Your task to perform on an android device: Clear all items from cart on walmart. Search for "jbl charge 4" on walmart, select the first entry, and add it to the cart. Image 0: 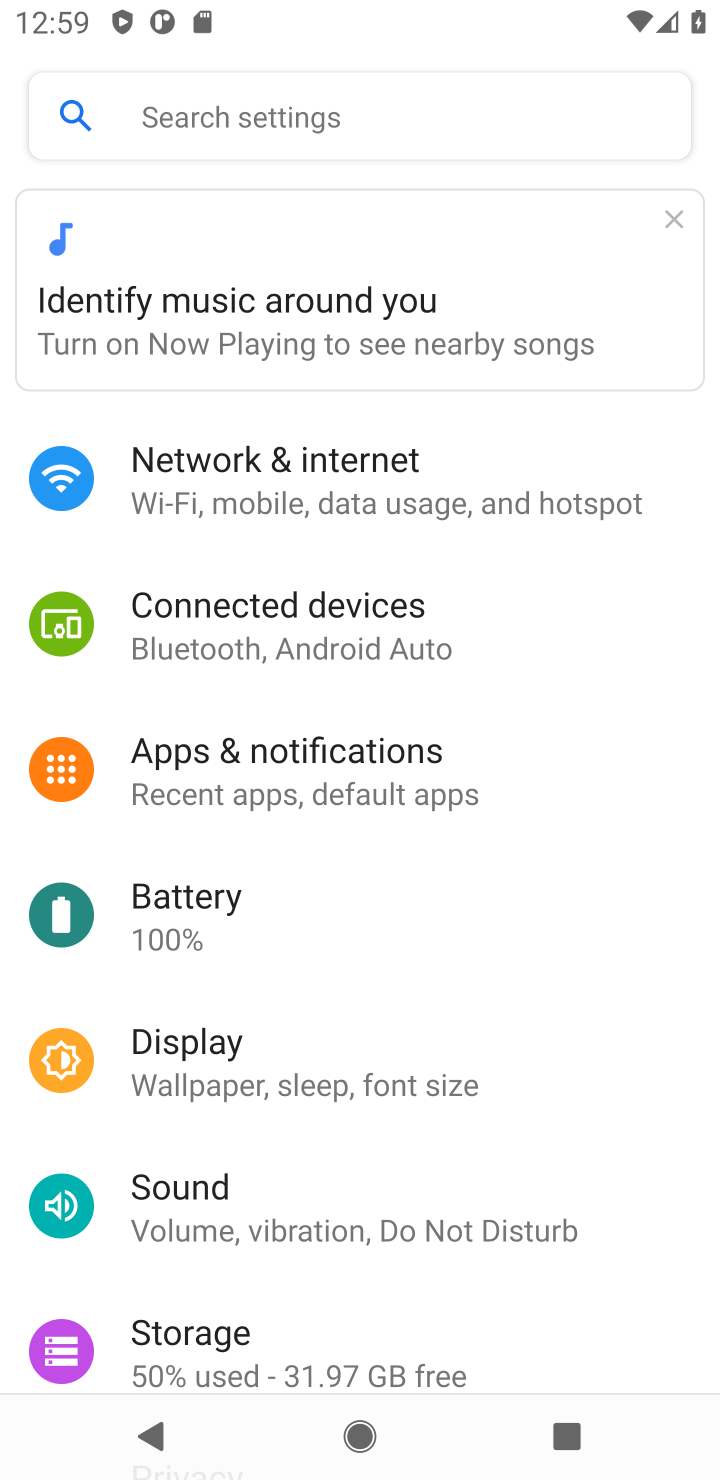
Step 0: press home button
Your task to perform on an android device: Clear all items from cart on walmart. Search for "jbl charge 4" on walmart, select the first entry, and add it to the cart. Image 1: 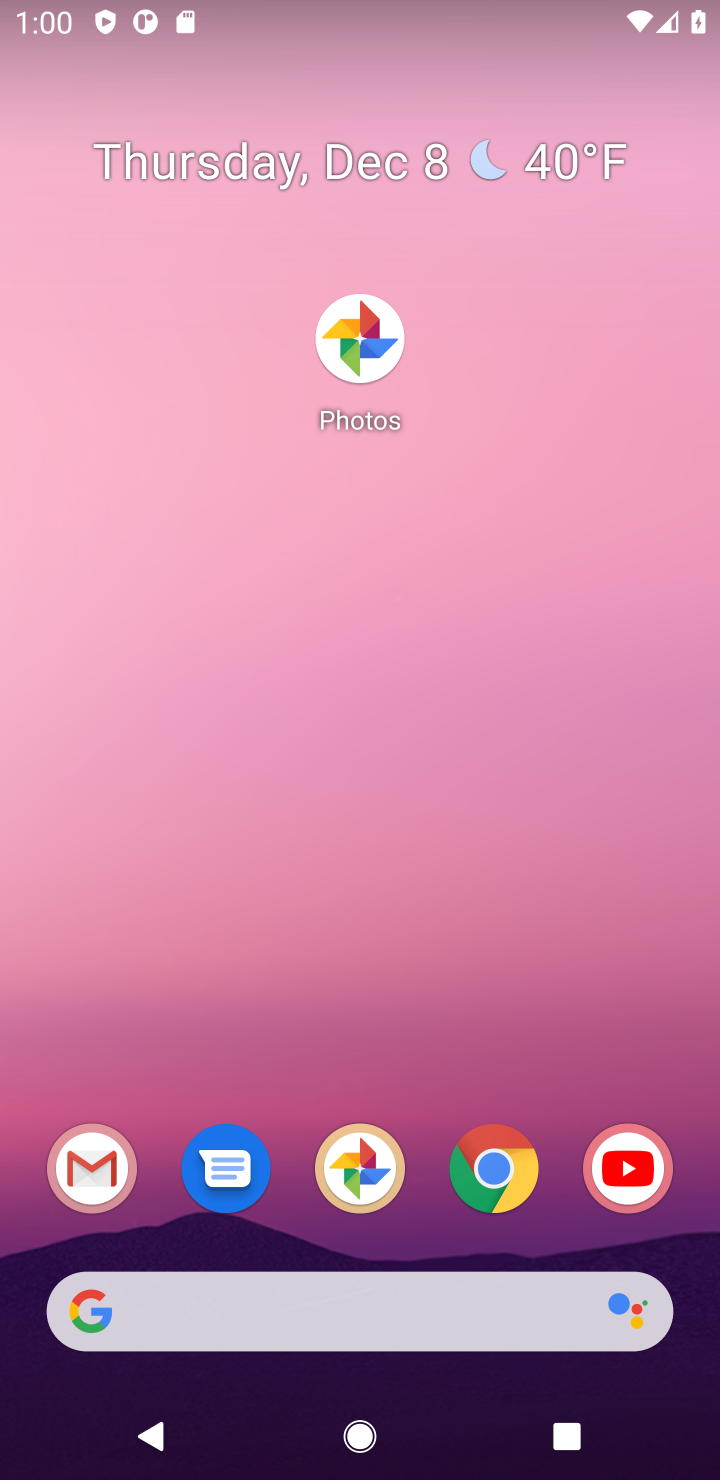
Step 1: drag from (356, 1187) to (356, 75)
Your task to perform on an android device: Clear all items from cart on walmart. Search for "jbl charge 4" on walmart, select the first entry, and add it to the cart. Image 2: 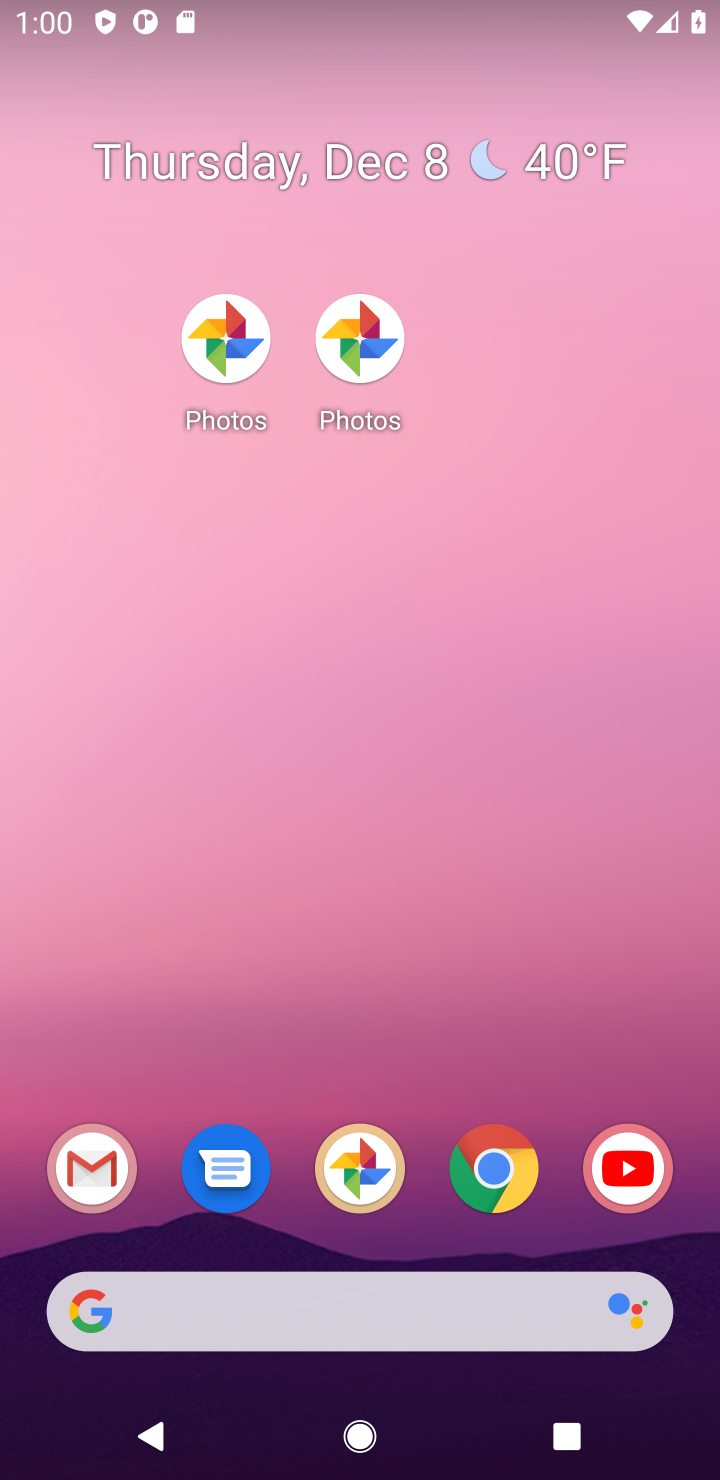
Step 2: drag from (321, 996) to (310, 210)
Your task to perform on an android device: Clear all items from cart on walmart. Search for "jbl charge 4" on walmart, select the first entry, and add it to the cart. Image 3: 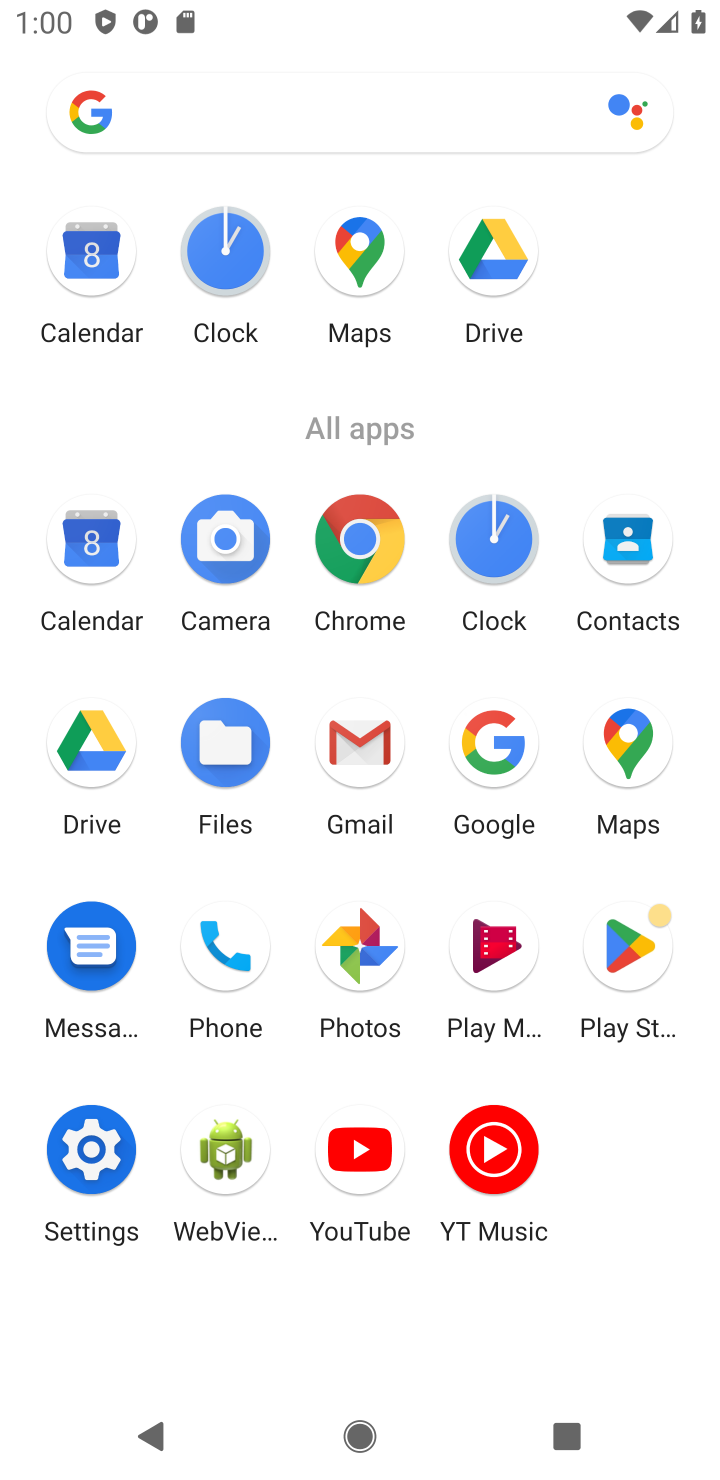
Step 3: click (496, 741)
Your task to perform on an android device: Clear all items from cart on walmart. Search for "jbl charge 4" on walmart, select the first entry, and add it to the cart. Image 4: 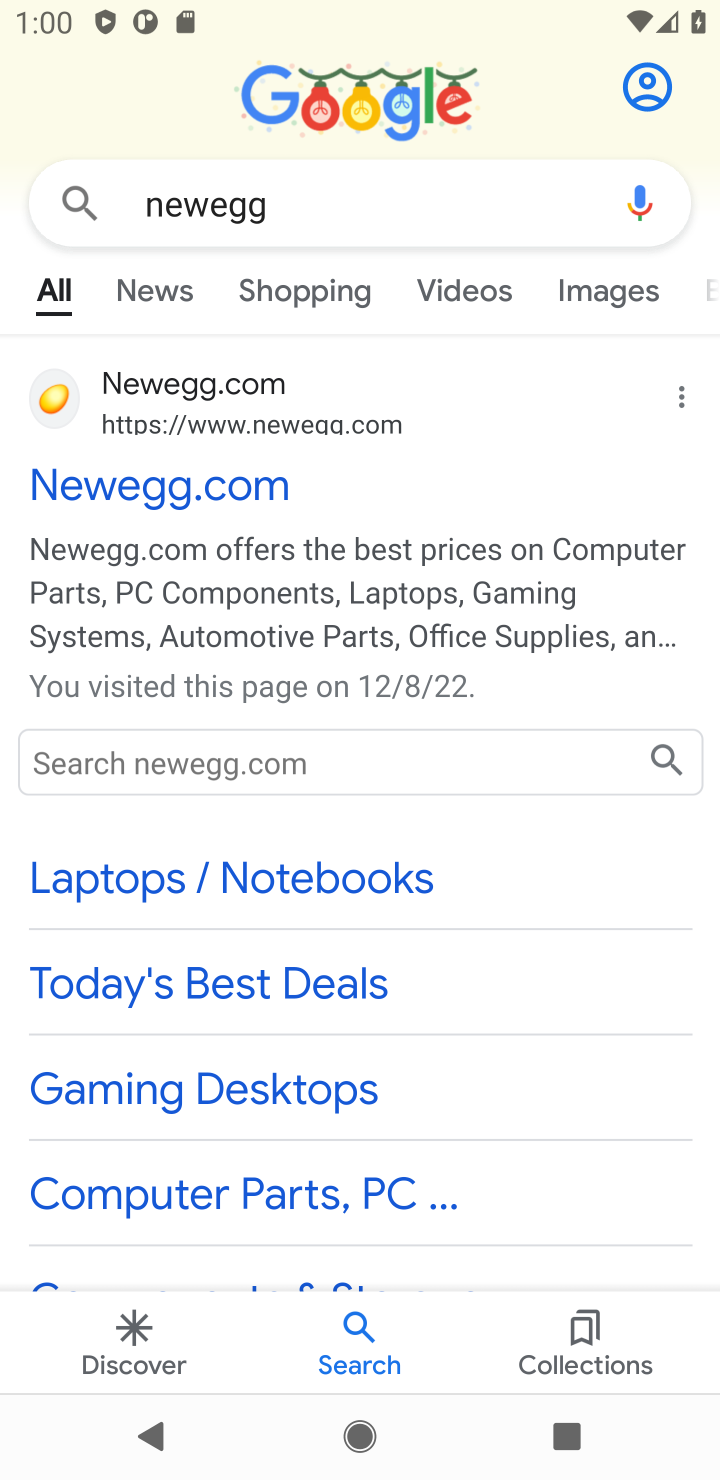
Step 4: click (213, 210)
Your task to perform on an android device: Clear all items from cart on walmart. Search for "jbl charge 4" on walmart, select the first entry, and add it to the cart. Image 5: 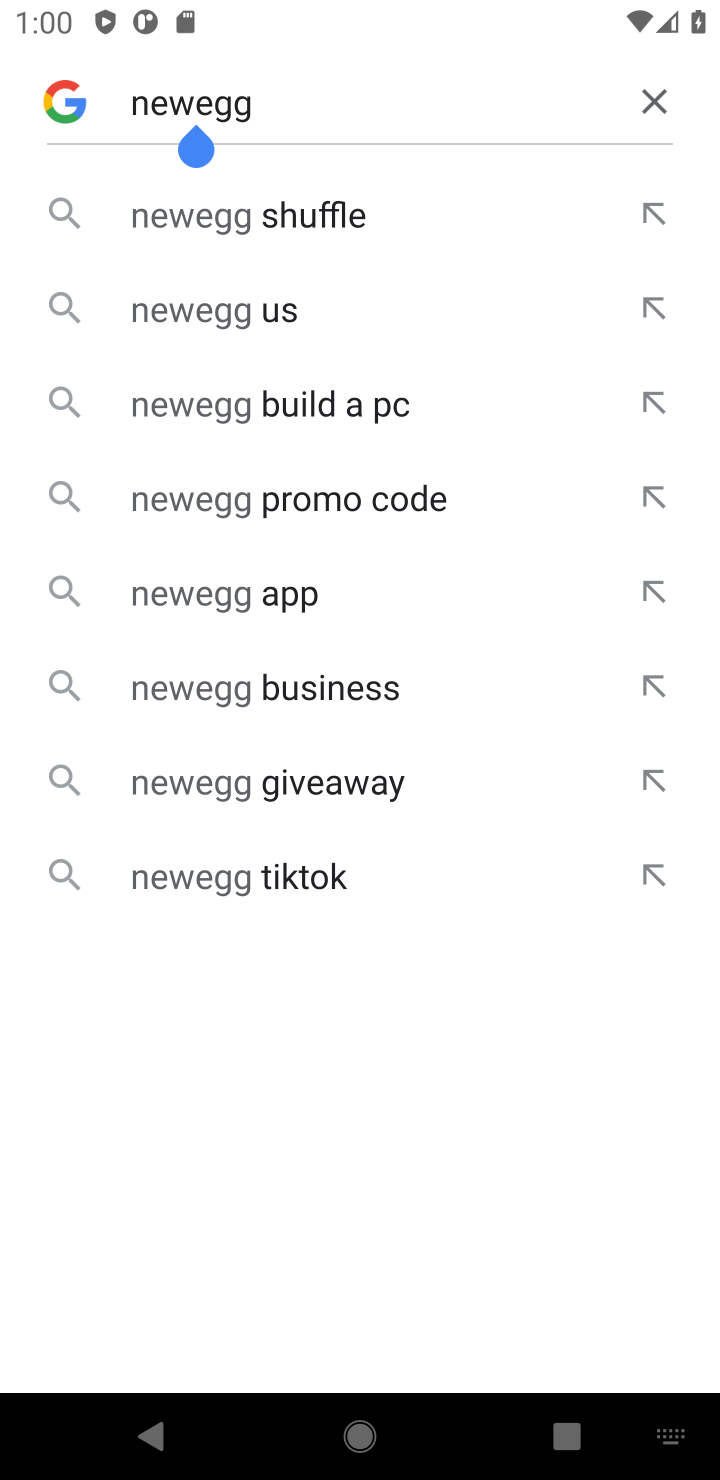
Step 5: click (652, 117)
Your task to perform on an android device: Clear all items from cart on walmart. Search for "jbl charge 4" on walmart, select the first entry, and add it to the cart. Image 6: 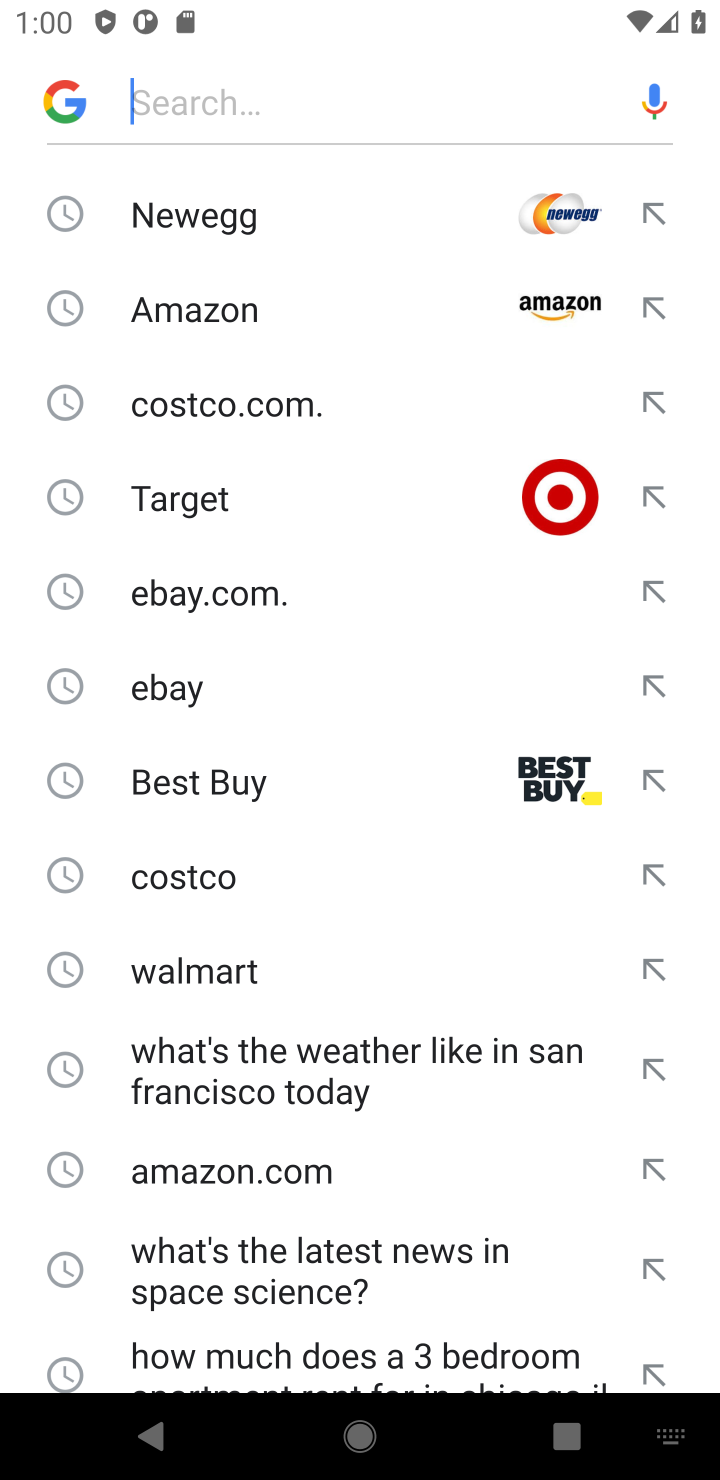
Step 6: click (174, 107)
Your task to perform on an android device: Clear all items from cart on walmart. Search for "jbl charge 4" on walmart, select the first entry, and add it to the cart. Image 7: 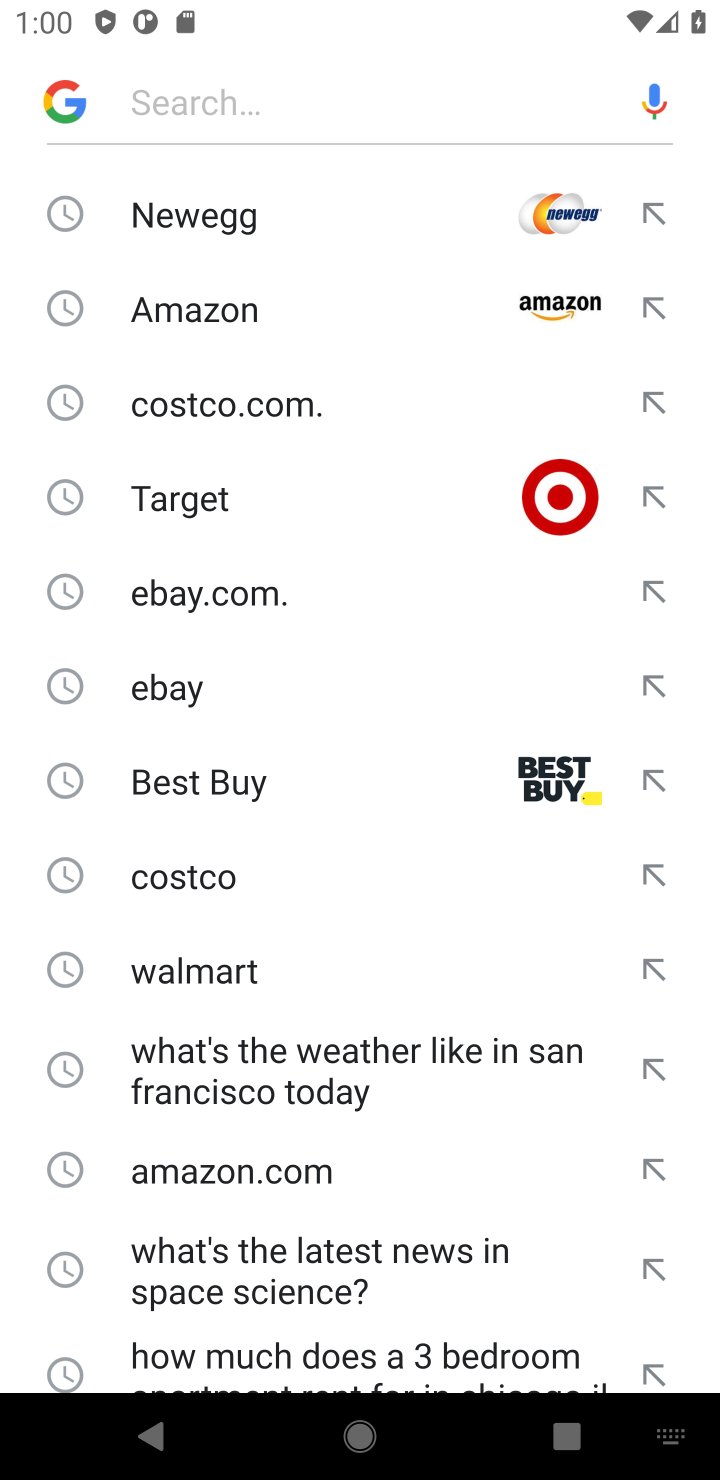
Step 7: click (216, 970)
Your task to perform on an android device: Clear all items from cart on walmart. Search for "jbl charge 4" on walmart, select the first entry, and add it to the cart. Image 8: 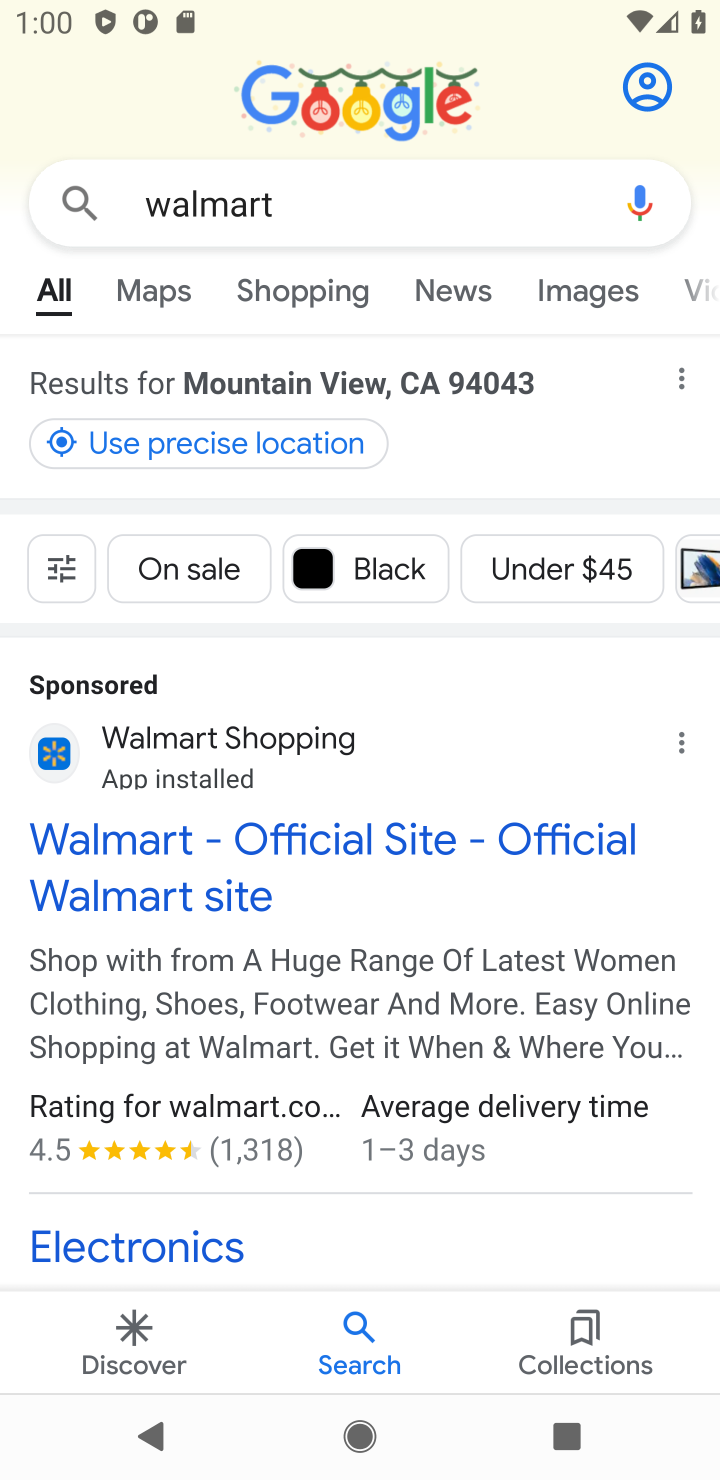
Step 8: click (185, 870)
Your task to perform on an android device: Clear all items from cart on walmart. Search for "jbl charge 4" on walmart, select the first entry, and add it to the cart. Image 9: 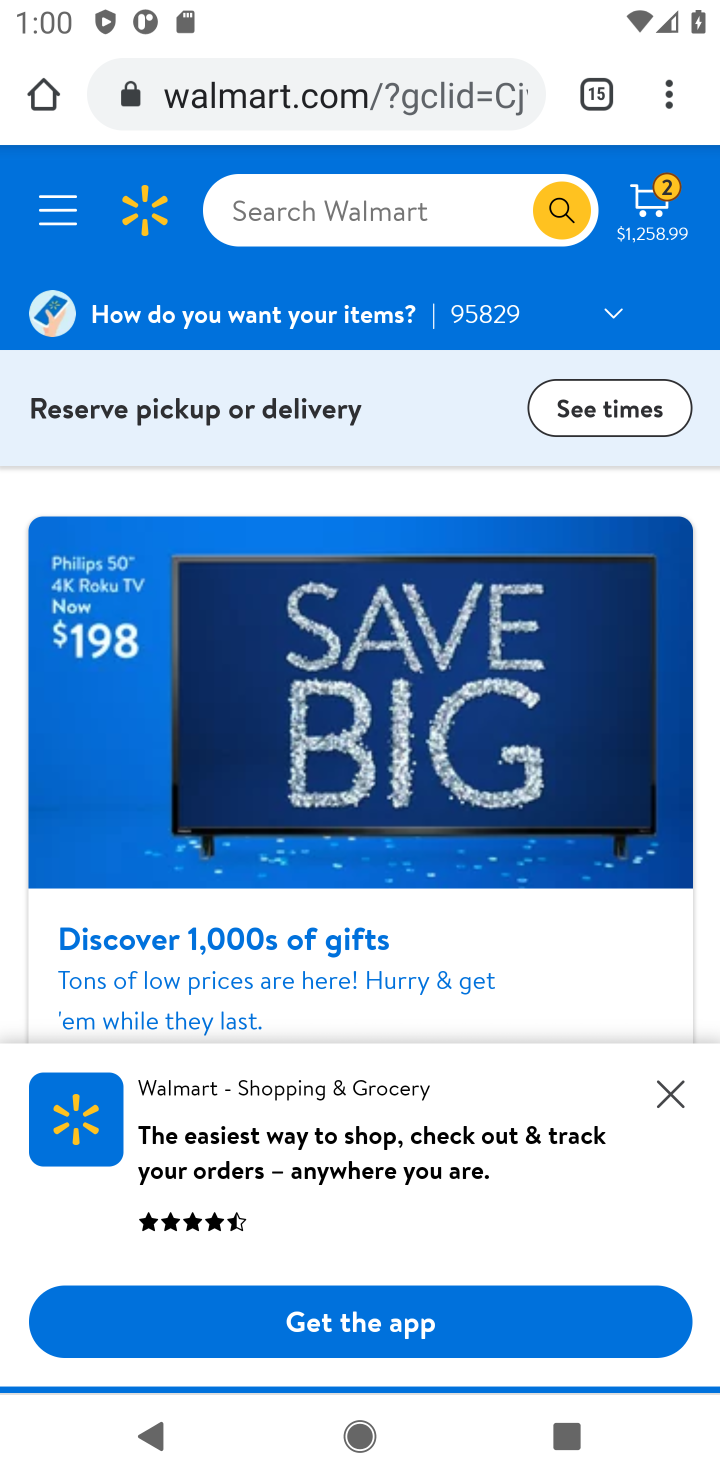
Step 9: click (288, 207)
Your task to perform on an android device: Clear all items from cart on walmart. Search for "jbl charge 4" on walmart, select the first entry, and add it to the cart. Image 10: 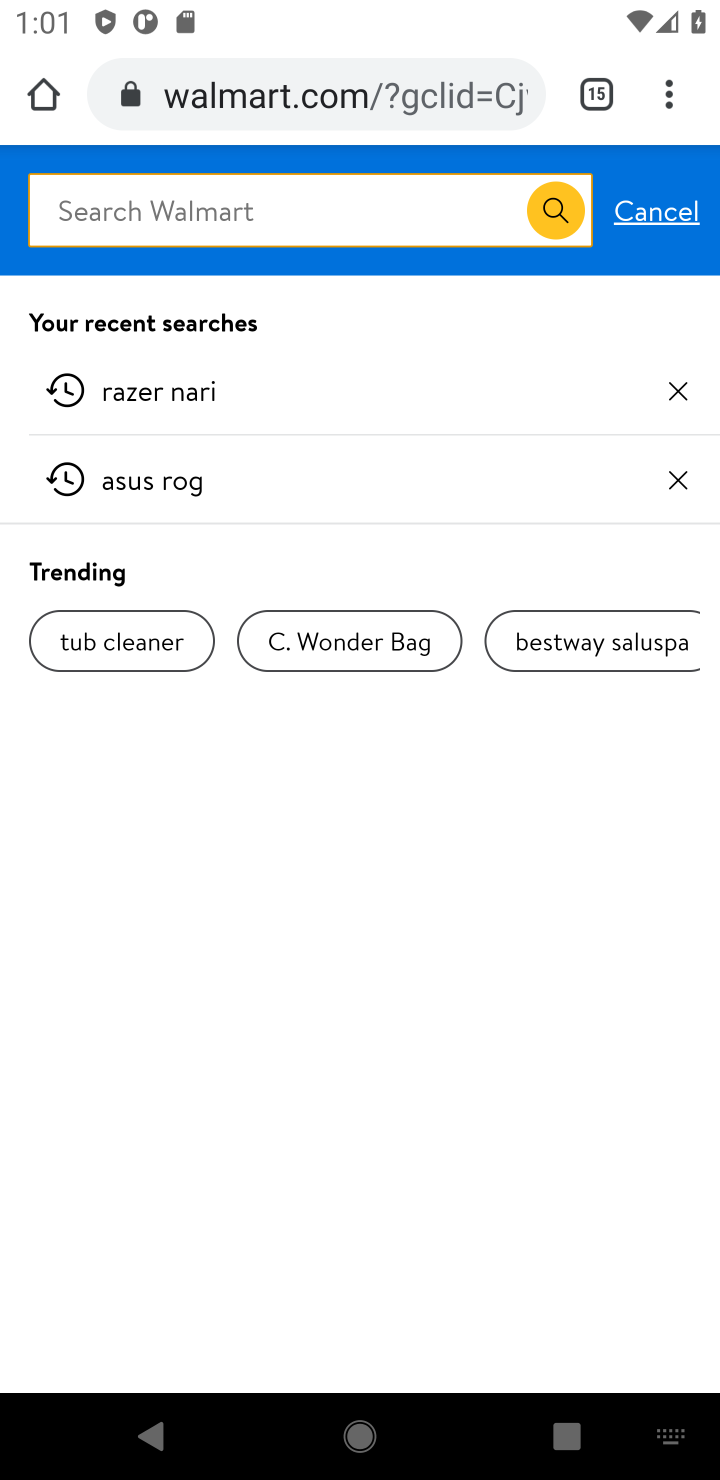
Step 10: type "jbl charge 4"
Your task to perform on an android device: Clear all items from cart on walmart. Search for "jbl charge 4" on walmart, select the first entry, and add it to the cart. Image 11: 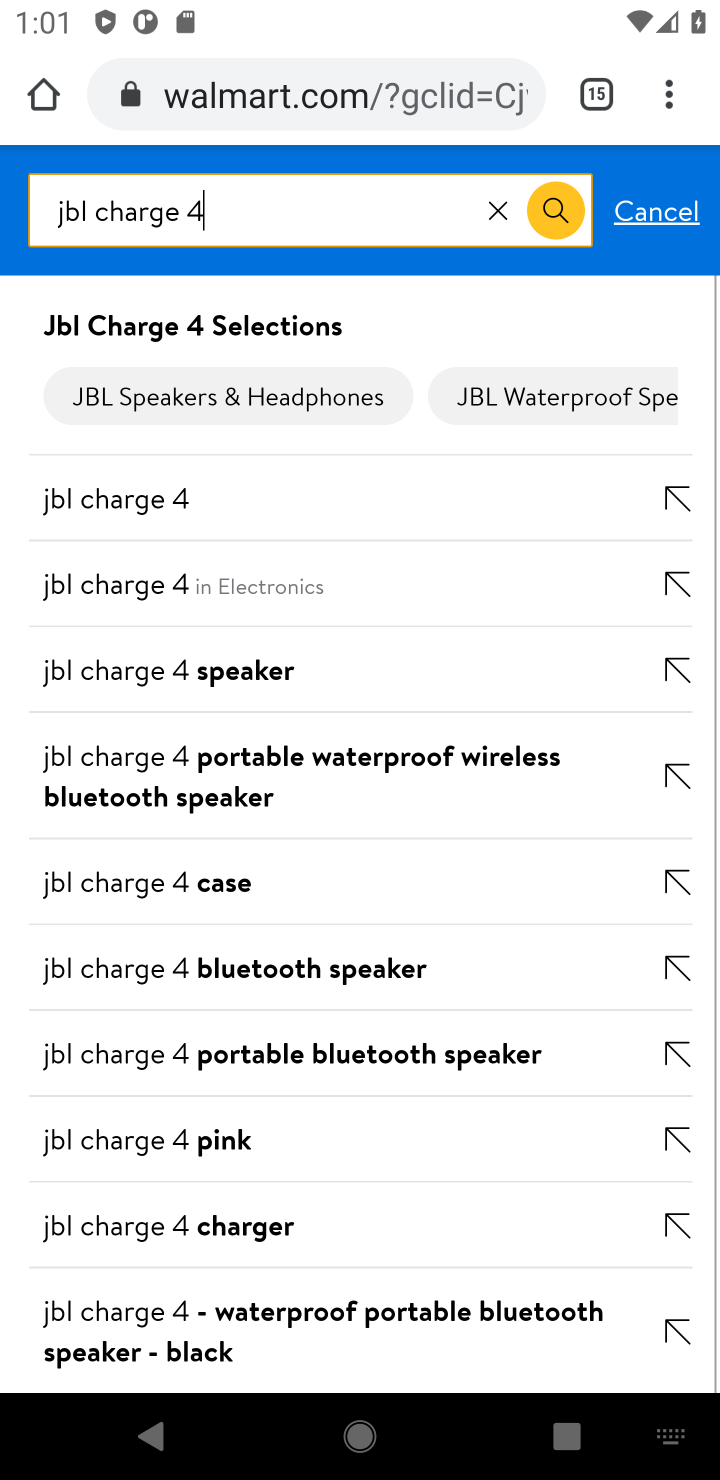
Step 11: click (130, 502)
Your task to perform on an android device: Clear all items from cart on walmart. Search for "jbl charge 4" on walmart, select the first entry, and add it to the cart. Image 12: 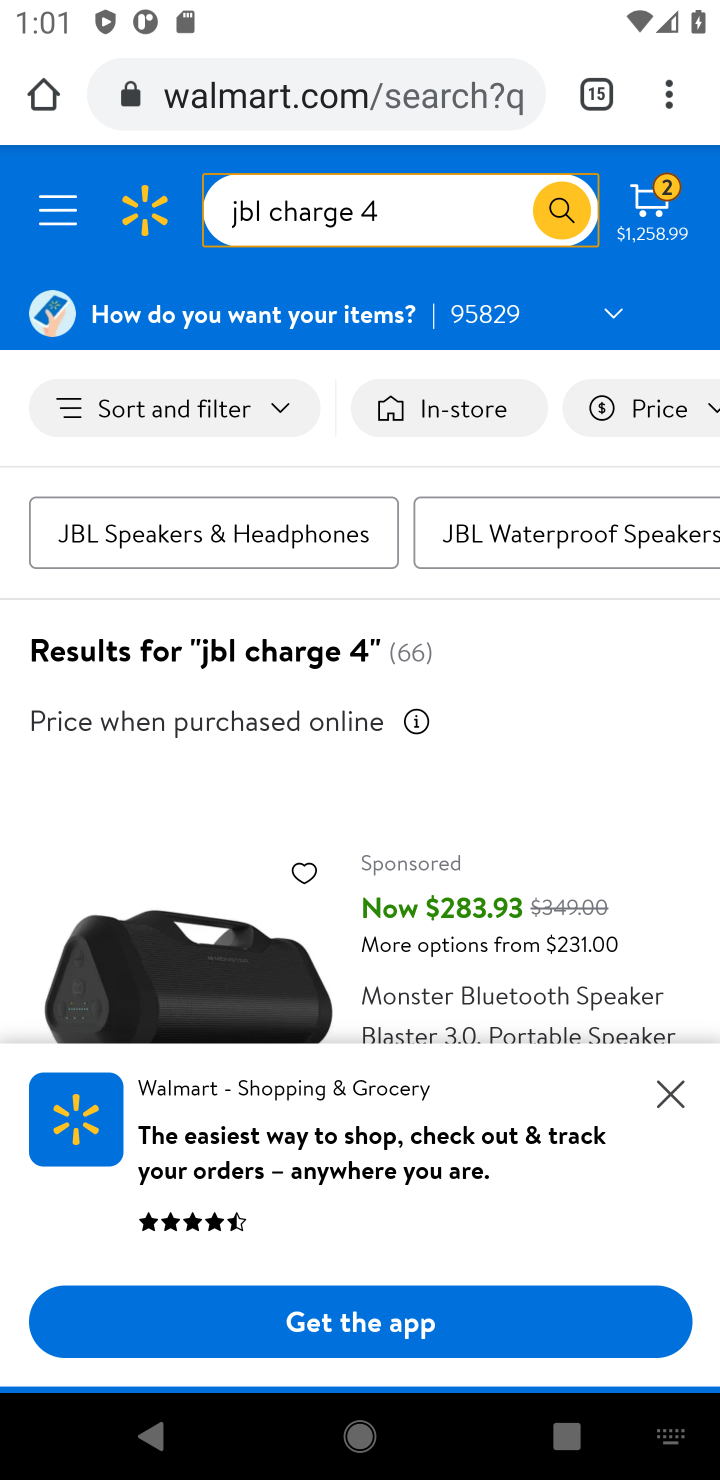
Step 12: task complete